Your task to perform on an android device: Open calendar and show me the fourth week of next month Image 0: 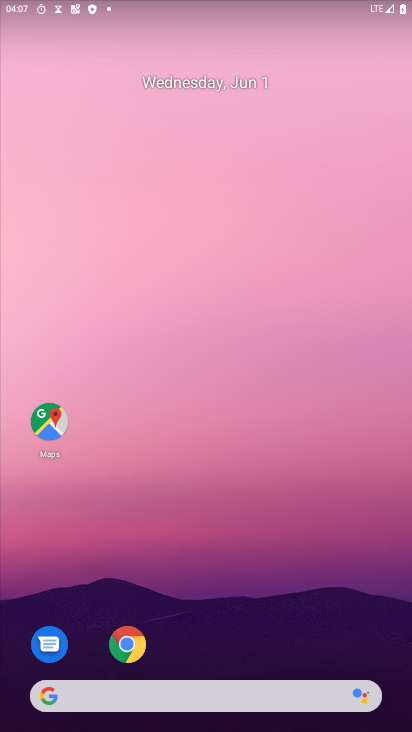
Step 0: drag from (274, 416) to (274, 136)
Your task to perform on an android device: Open calendar and show me the fourth week of next month Image 1: 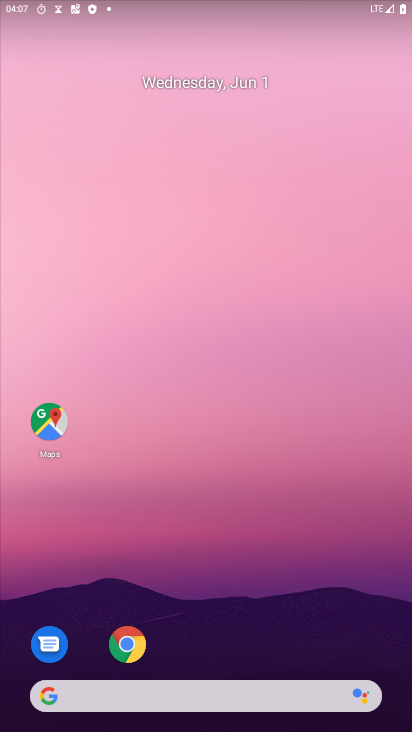
Step 1: drag from (244, 559) to (228, 50)
Your task to perform on an android device: Open calendar and show me the fourth week of next month Image 2: 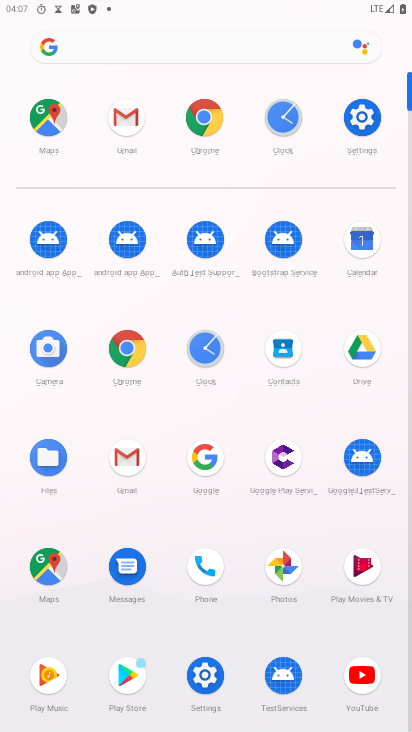
Step 2: click (357, 250)
Your task to perform on an android device: Open calendar and show me the fourth week of next month Image 3: 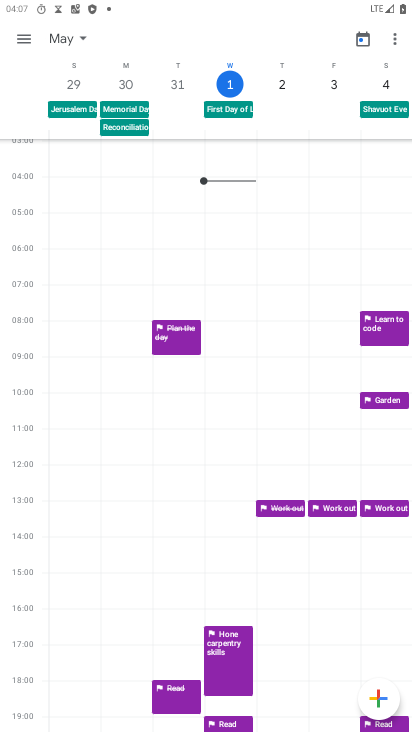
Step 3: click (20, 33)
Your task to perform on an android device: Open calendar and show me the fourth week of next month Image 4: 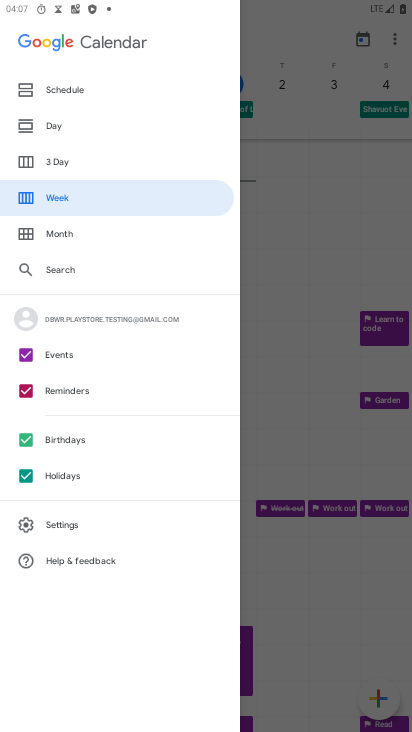
Step 4: click (71, 226)
Your task to perform on an android device: Open calendar and show me the fourth week of next month Image 5: 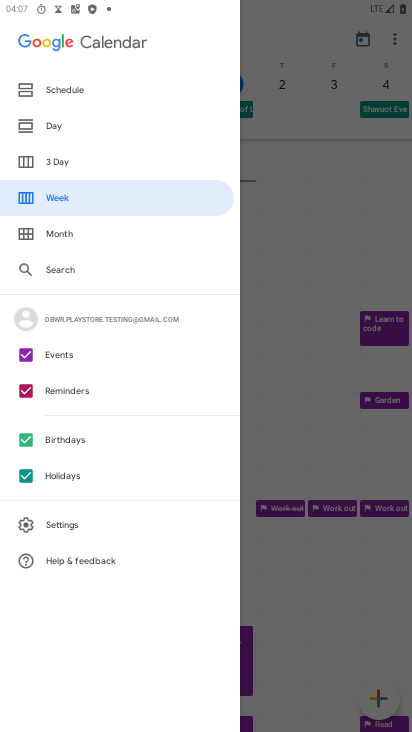
Step 5: click (51, 239)
Your task to perform on an android device: Open calendar and show me the fourth week of next month Image 6: 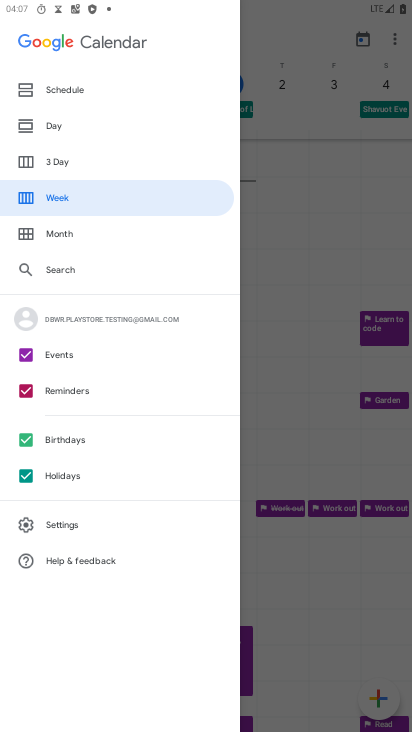
Step 6: click (52, 234)
Your task to perform on an android device: Open calendar and show me the fourth week of next month Image 7: 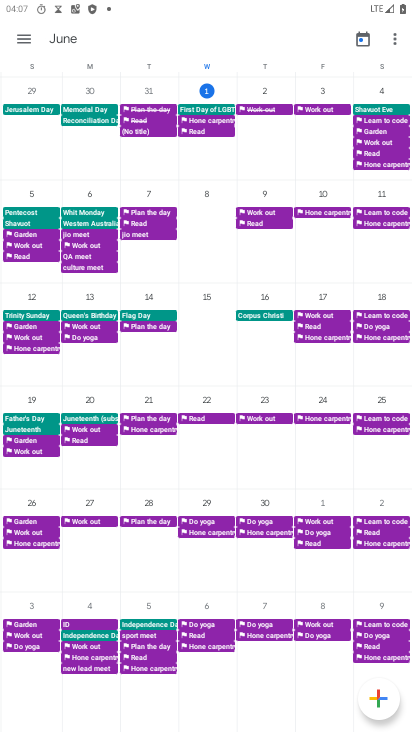
Step 7: drag from (339, 256) to (2, 339)
Your task to perform on an android device: Open calendar and show me the fourth week of next month Image 8: 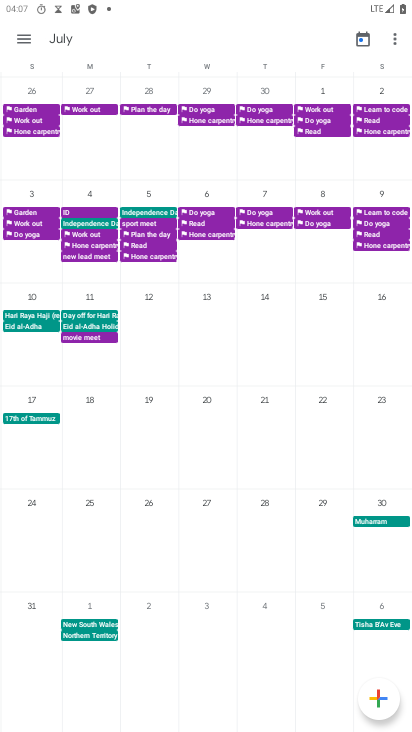
Step 8: click (8, 445)
Your task to perform on an android device: Open calendar and show me the fourth week of next month Image 9: 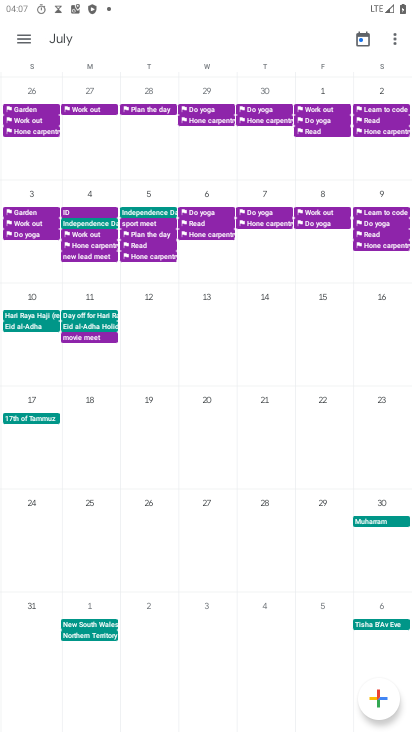
Step 9: click (31, 448)
Your task to perform on an android device: Open calendar and show me the fourth week of next month Image 10: 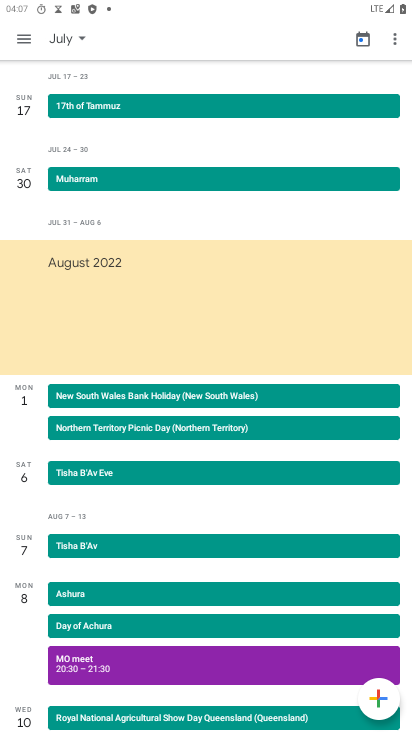
Step 10: task complete